Your task to perform on an android device: make emails show in primary in the gmail app Image 0: 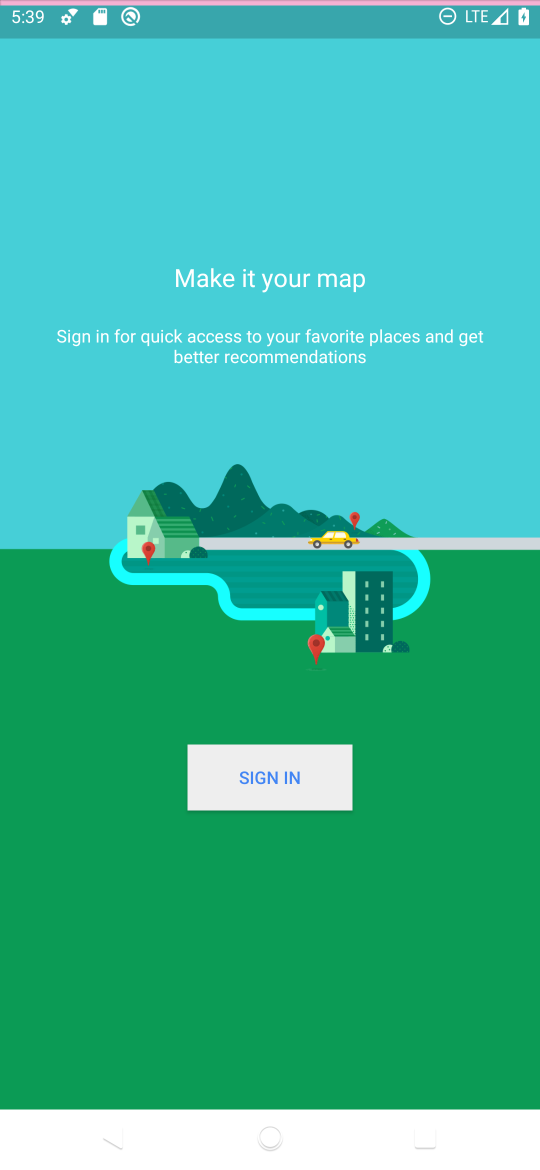
Step 0: press home button
Your task to perform on an android device: make emails show in primary in the gmail app Image 1: 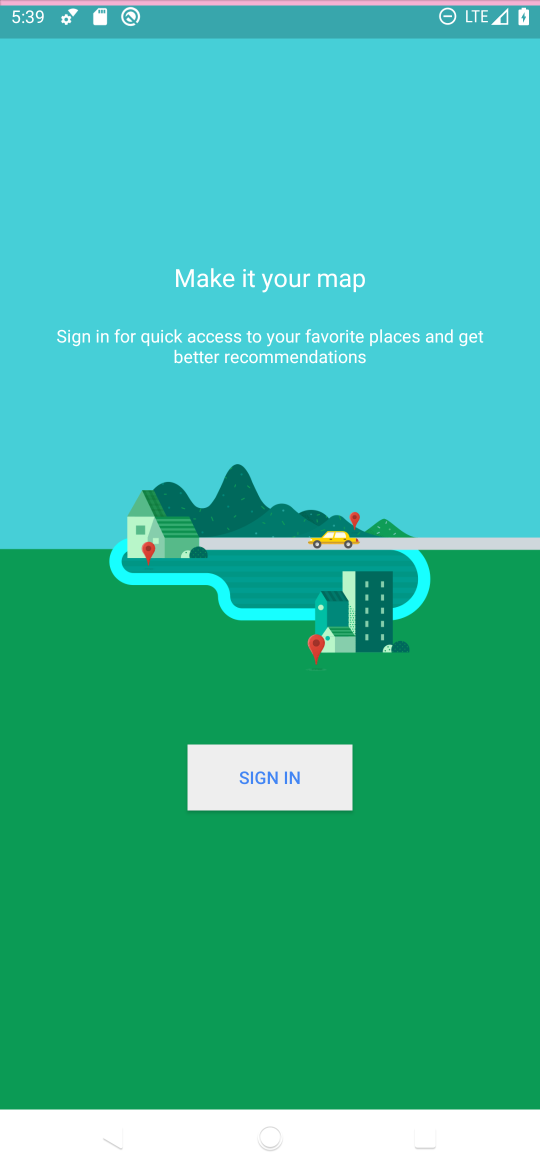
Step 1: click (294, 26)
Your task to perform on an android device: make emails show in primary in the gmail app Image 2: 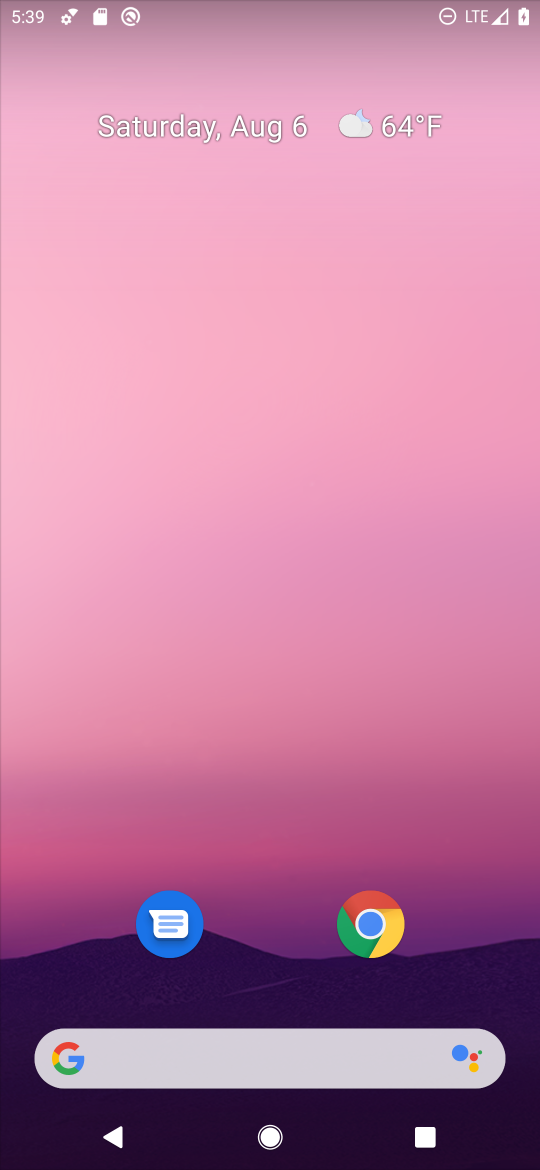
Step 2: drag from (236, 867) to (195, 101)
Your task to perform on an android device: make emails show in primary in the gmail app Image 3: 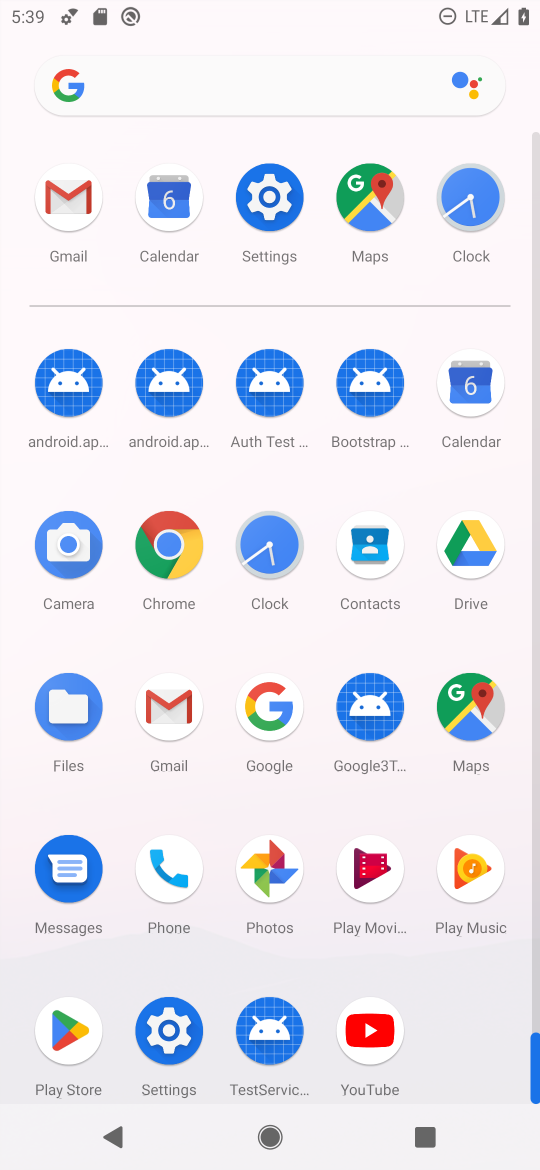
Step 3: click (68, 184)
Your task to perform on an android device: make emails show in primary in the gmail app Image 4: 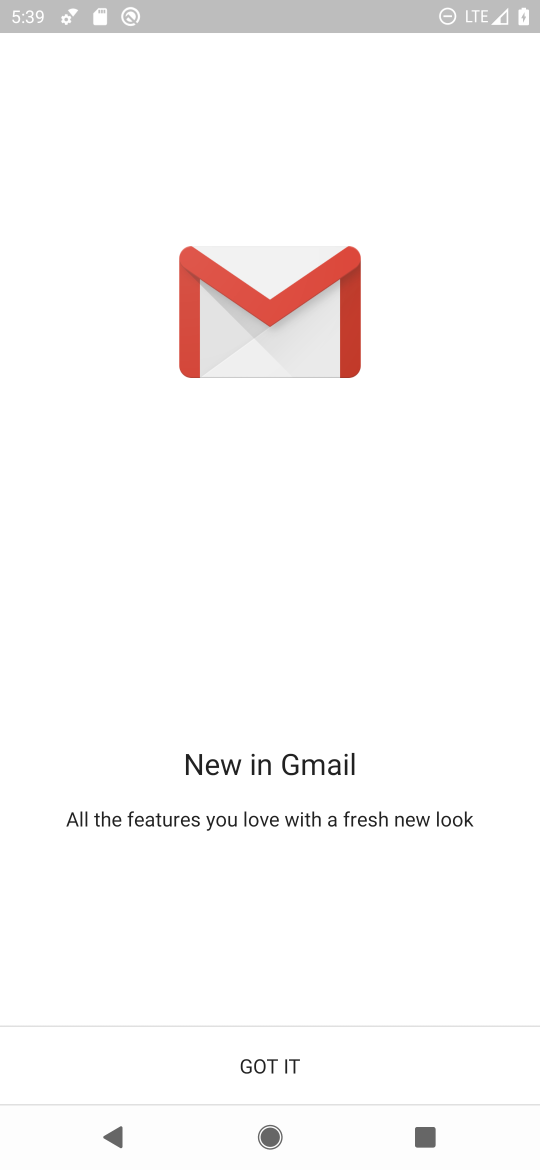
Step 4: click (260, 1055)
Your task to perform on an android device: make emails show in primary in the gmail app Image 5: 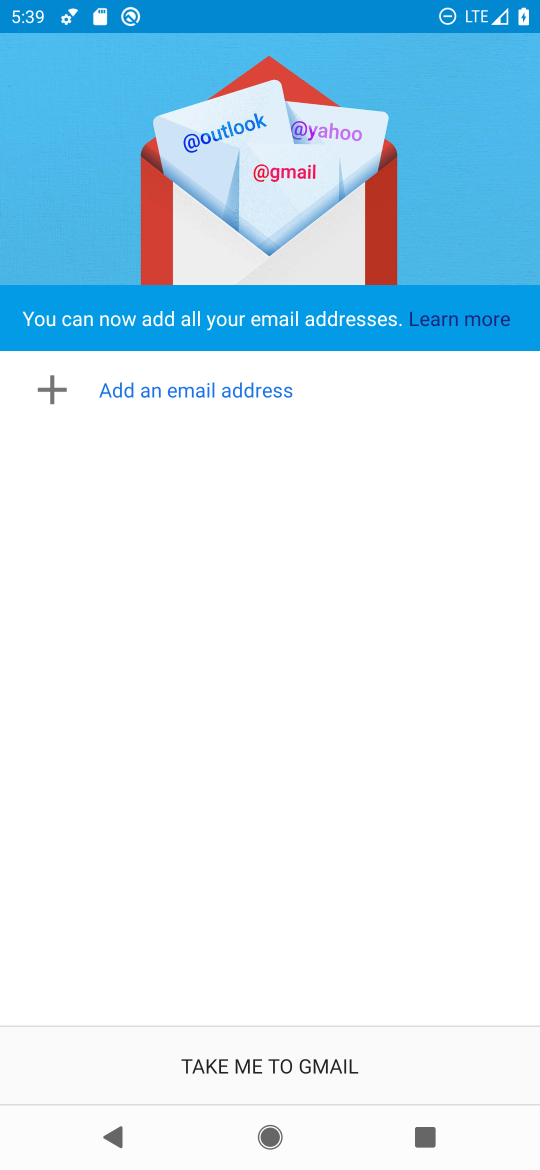
Step 5: click (260, 1055)
Your task to perform on an android device: make emails show in primary in the gmail app Image 6: 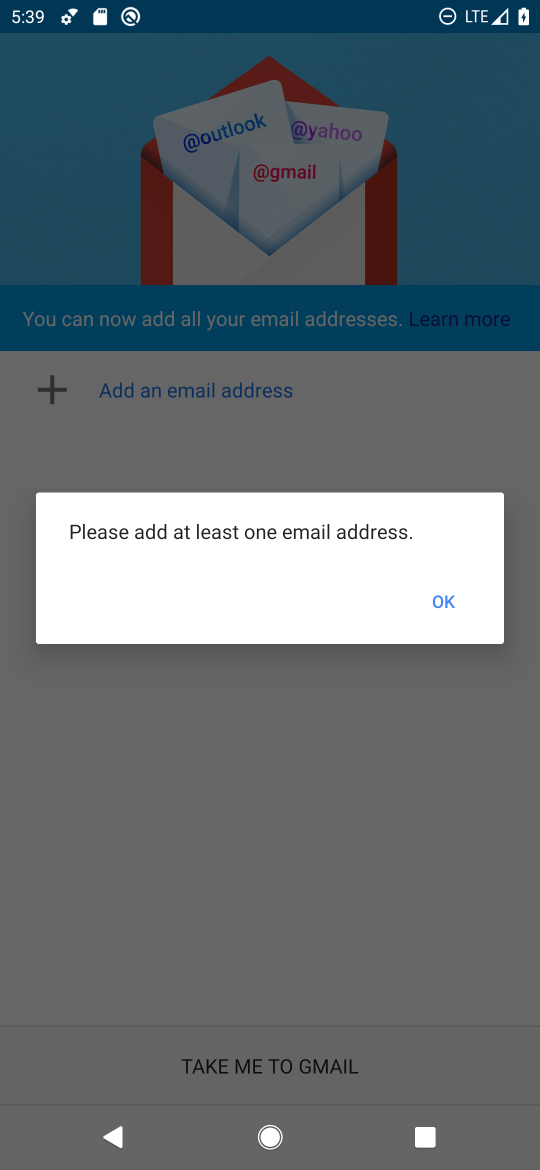
Step 6: click (449, 604)
Your task to perform on an android device: make emails show in primary in the gmail app Image 7: 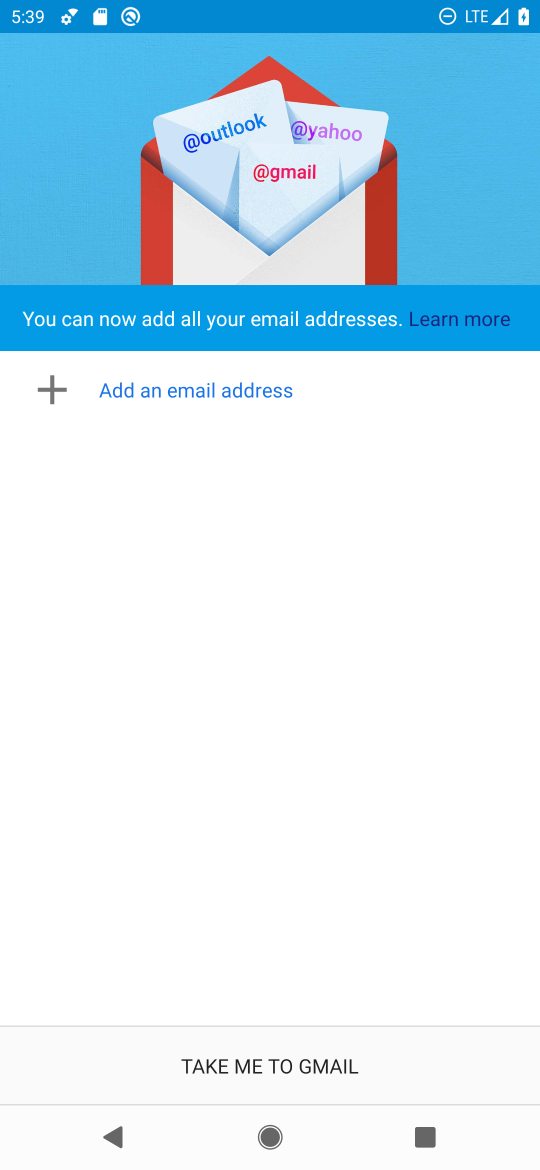
Step 7: task complete